Your task to perform on an android device: Open the calendar and show me this week's events Image 0: 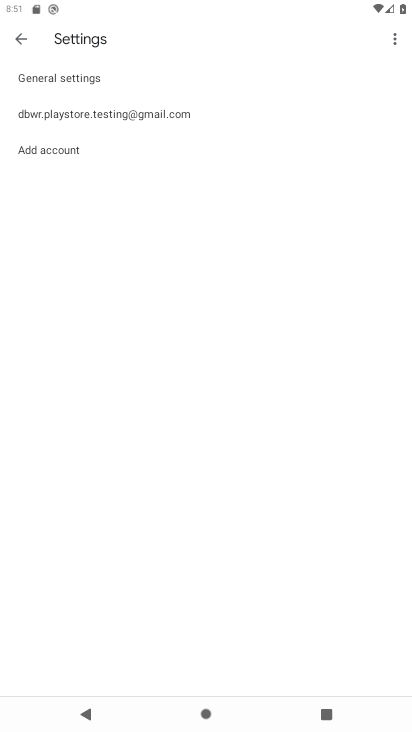
Step 0: press back button
Your task to perform on an android device: Open the calendar and show me this week's events Image 1: 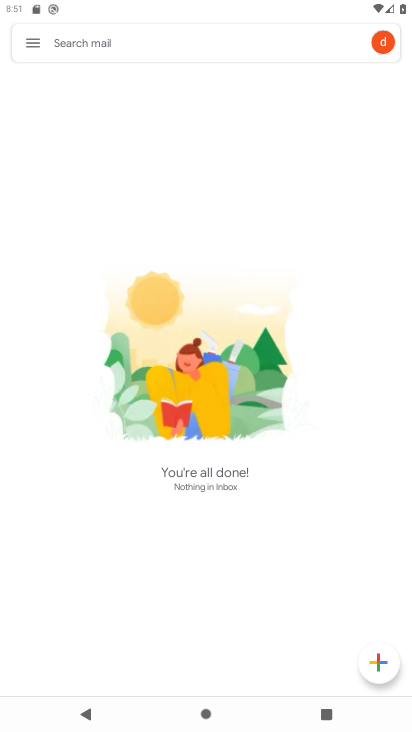
Step 1: press back button
Your task to perform on an android device: Open the calendar and show me this week's events Image 2: 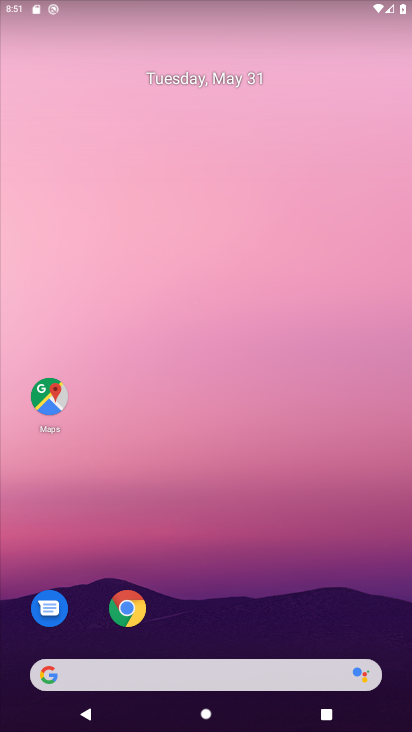
Step 2: drag from (248, 602) to (220, 124)
Your task to perform on an android device: Open the calendar and show me this week's events Image 3: 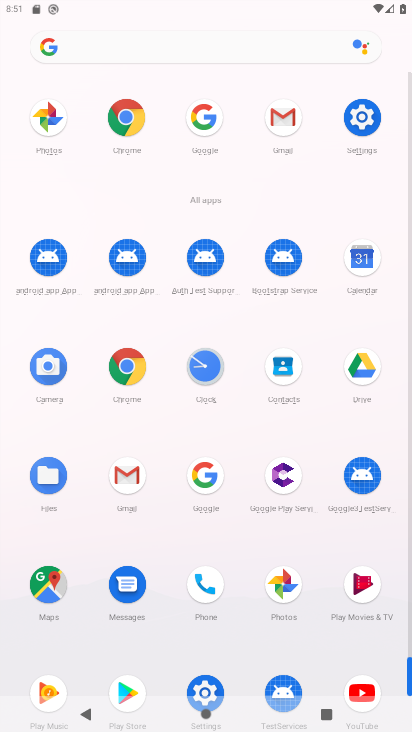
Step 3: click (362, 257)
Your task to perform on an android device: Open the calendar and show me this week's events Image 4: 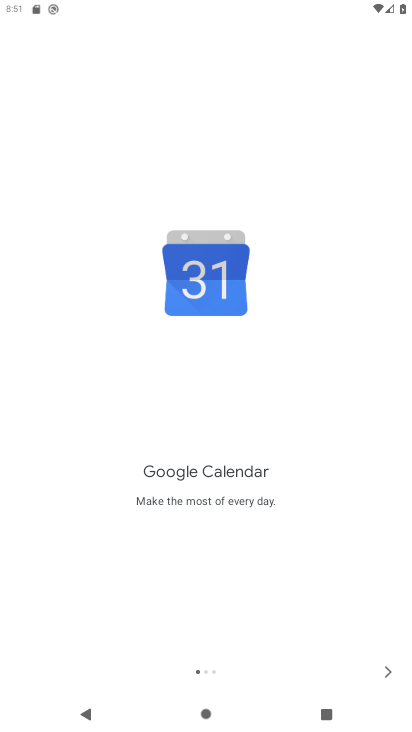
Step 4: click (387, 672)
Your task to perform on an android device: Open the calendar and show me this week's events Image 5: 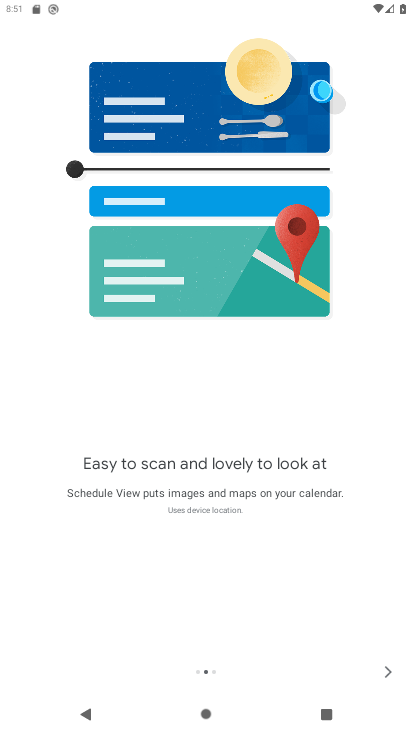
Step 5: click (387, 672)
Your task to perform on an android device: Open the calendar and show me this week's events Image 6: 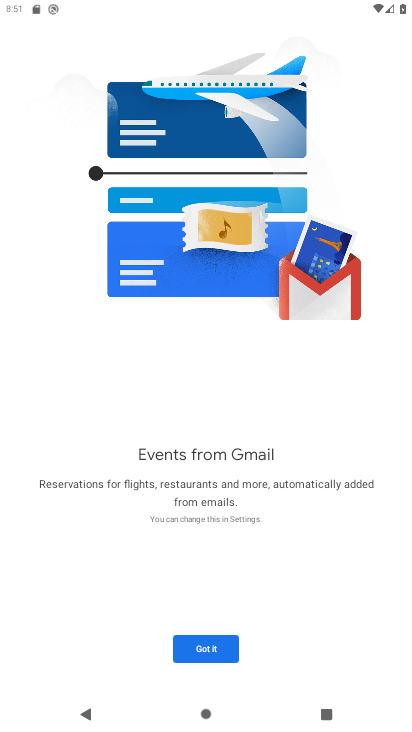
Step 6: click (206, 653)
Your task to perform on an android device: Open the calendar and show me this week's events Image 7: 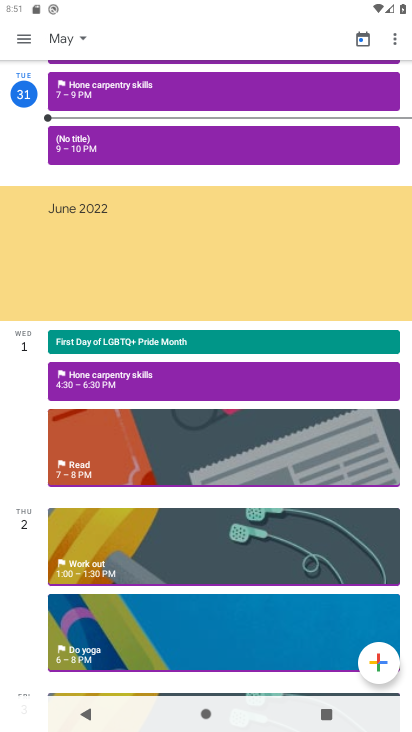
Step 7: click (76, 39)
Your task to perform on an android device: Open the calendar and show me this week's events Image 8: 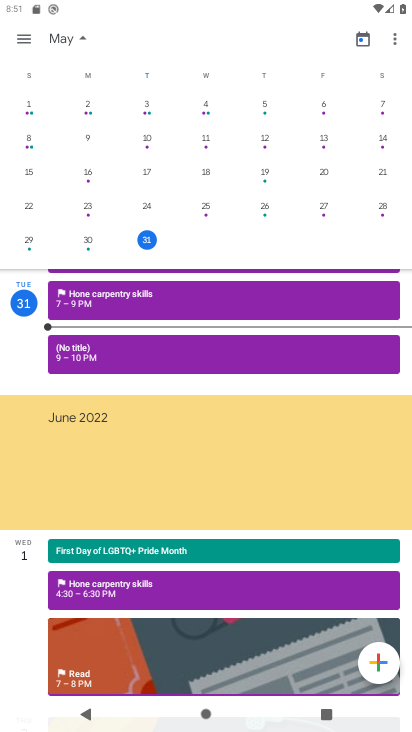
Step 8: drag from (304, 232) to (0, 207)
Your task to perform on an android device: Open the calendar and show me this week's events Image 9: 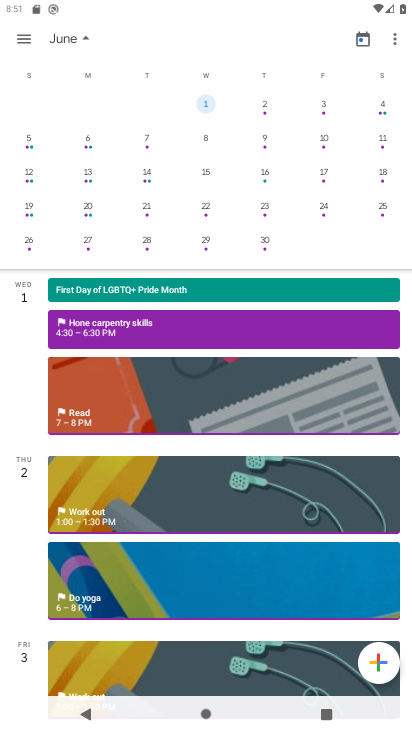
Step 9: click (255, 104)
Your task to perform on an android device: Open the calendar and show me this week's events Image 10: 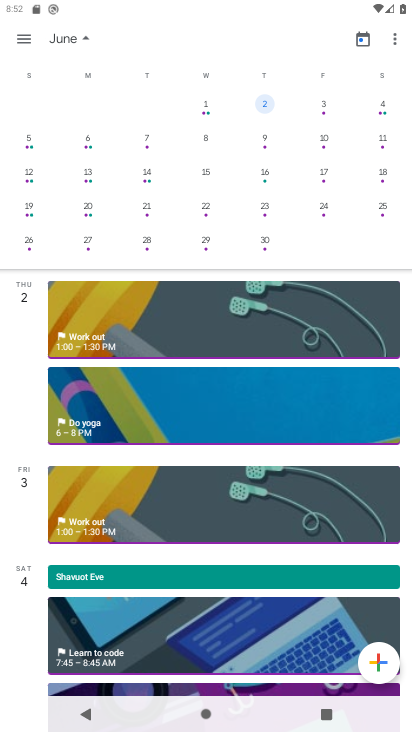
Step 10: click (29, 40)
Your task to perform on an android device: Open the calendar and show me this week's events Image 11: 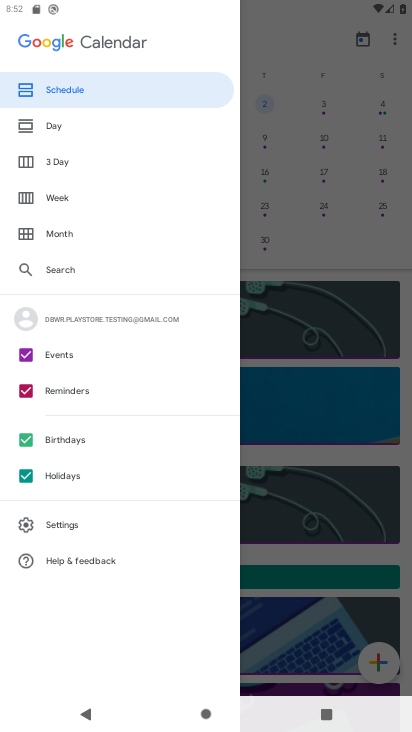
Step 11: click (42, 87)
Your task to perform on an android device: Open the calendar and show me this week's events Image 12: 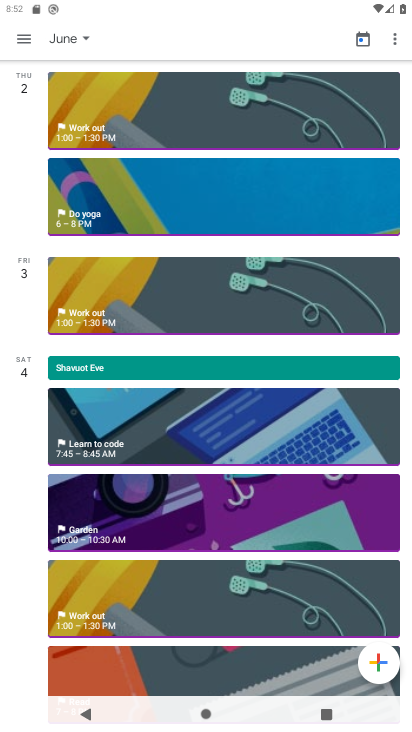
Step 12: task complete